Your task to perform on an android device: Do I have any events this weekend? Image 0: 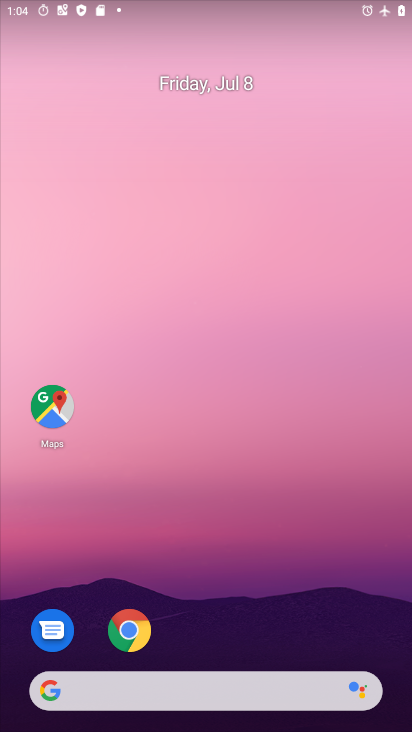
Step 0: drag from (220, 629) to (250, 187)
Your task to perform on an android device: Do I have any events this weekend? Image 1: 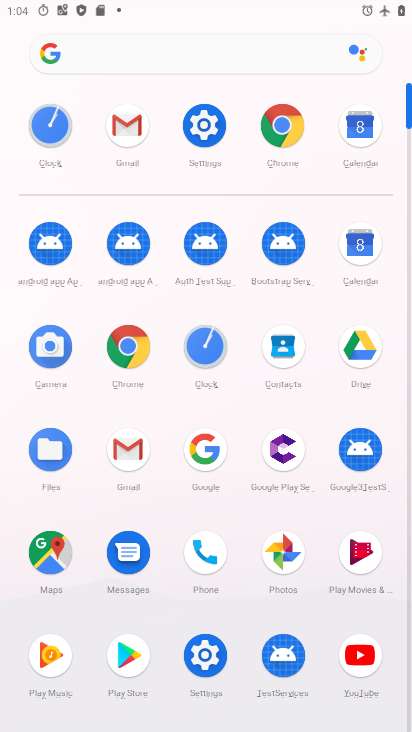
Step 1: click (362, 158)
Your task to perform on an android device: Do I have any events this weekend? Image 2: 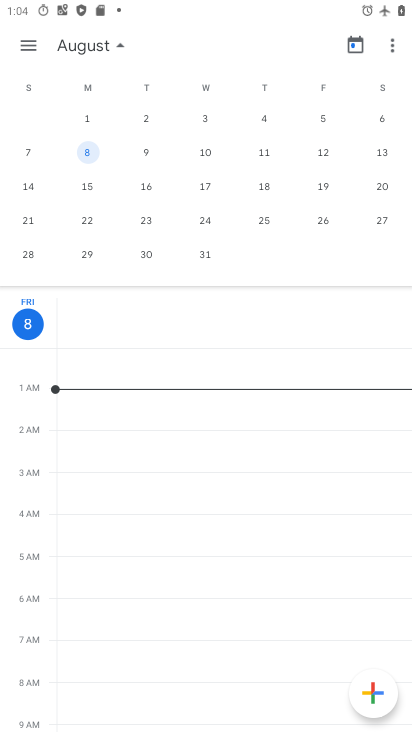
Step 2: task complete